Your task to perform on an android device: choose inbox layout in the gmail app Image 0: 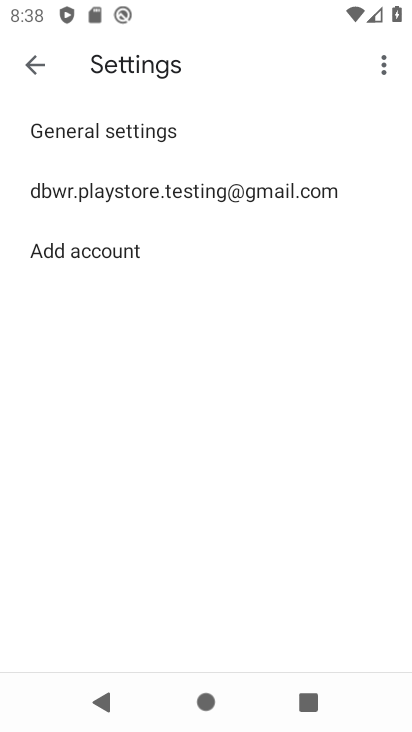
Step 0: press home button
Your task to perform on an android device: choose inbox layout in the gmail app Image 1: 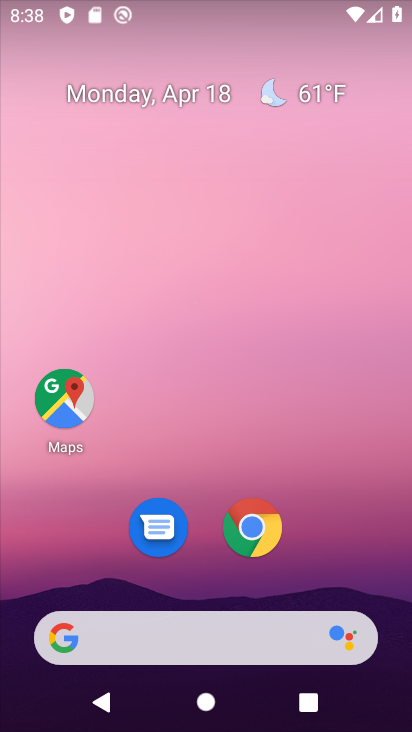
Step 1: drag from (354, 563) to (337, 59)
Your task to perform on an android device: choose inbox layout in the gmail app Image 2: 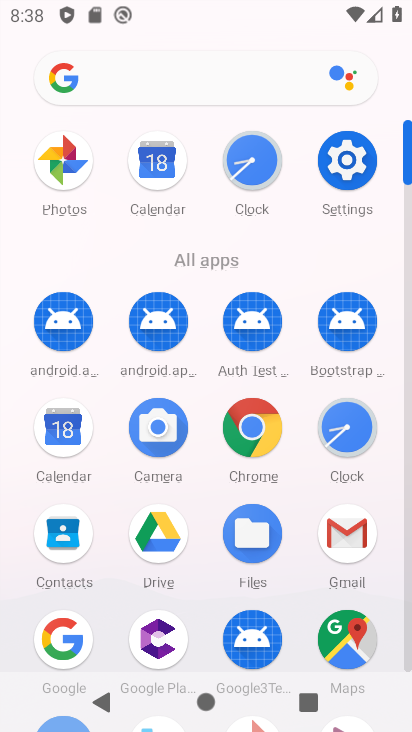
Step 2: click (345, 527)
Your task to perform on an android device: choose inbox layout in the gmail app Image 3: 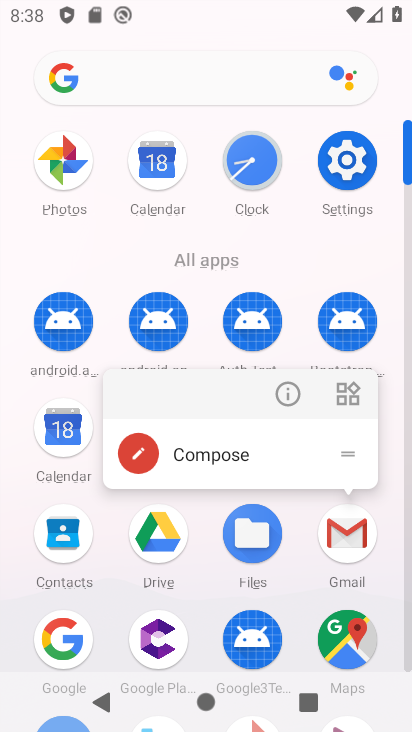
Step 3: click (342, 534)
Your task to perform on an android device: choose inbox layout in the gmail app Image 4: 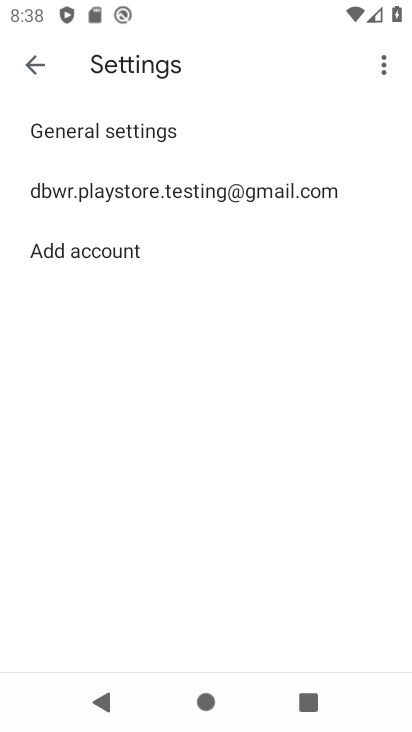
Step 4: click (76, 191)
Your task to perform on an android device: choose inbox layout in the gmail app Image 5: 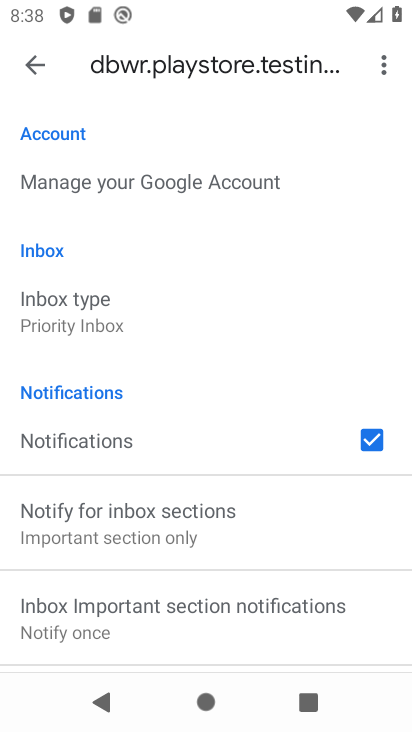
Step 5: click (65, 315)
Your task to perform on an android device: choose inbox layout in the gmail app Image 6: 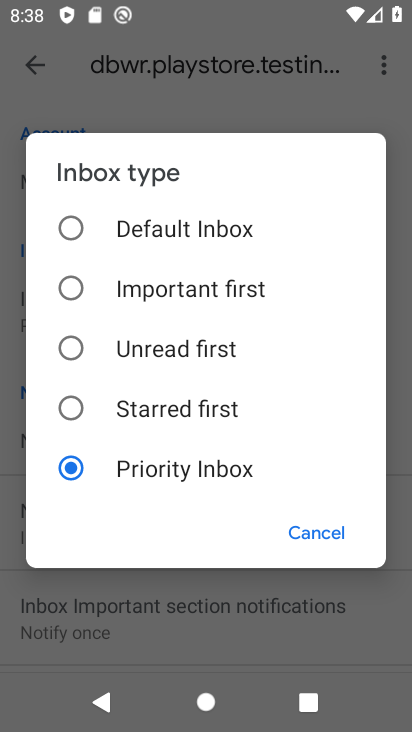
Step 6: click (76, 285)
Your task to perform on an android device: choose inbox layout in the gmail app Image 7: 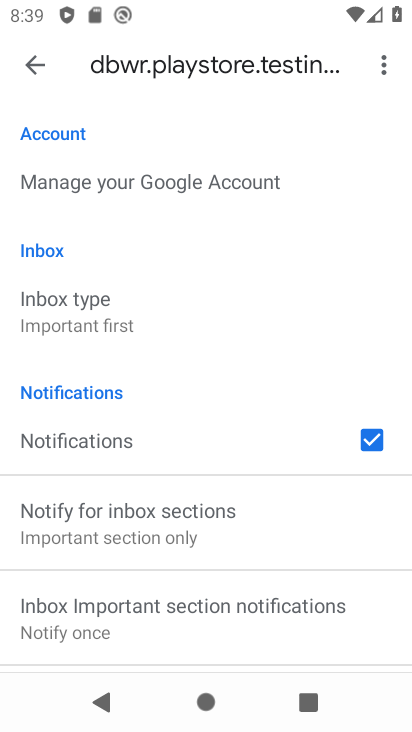
Step 7: task complete